Your task to perform on an android device: Do I have any events this weekend? Image 0: 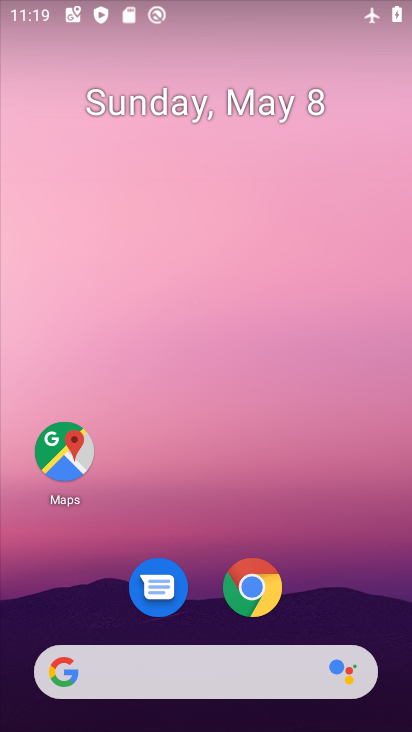
Step 0: drag from (376, 608) to (163, 154)
Your task to perform on an android device: Do I have any events this weekend? Image 1: 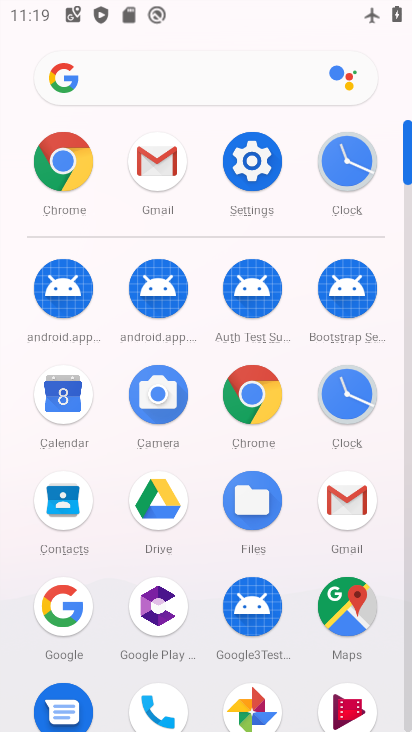
Step 1: click (64, 392)
Your task to perform on an android device: Do I have any events this weekend? Image 2: 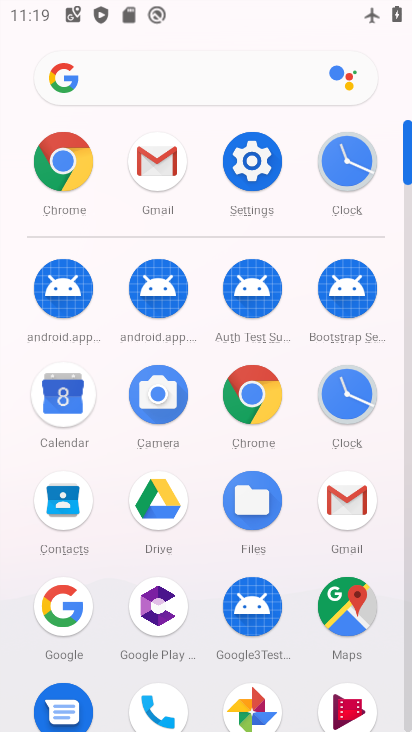
Step 2: click (59, 392)
Your task to perform on an android device: Do I have any events this weekend? Image 3: 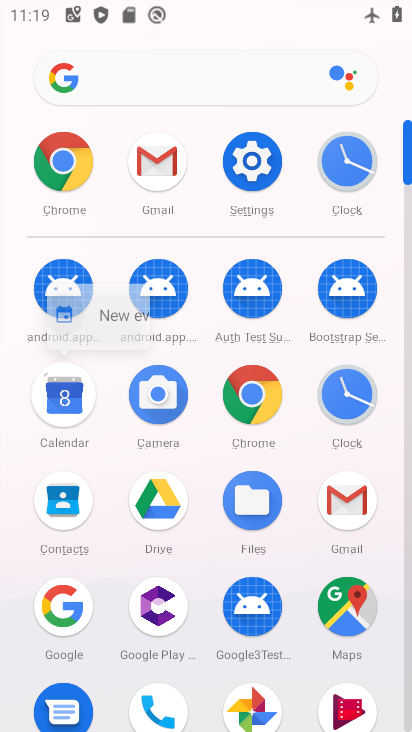
Step 3: click (50, 391)
Your task to perform on an android device: Do I have any events this weekend? Image 4: 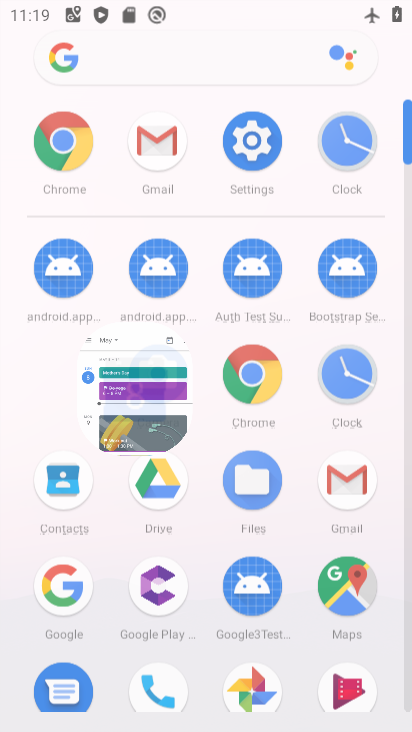
Step 4: click (50, 391)
Your task to perform on an android device: Do I have any events this weekend? Image 5: 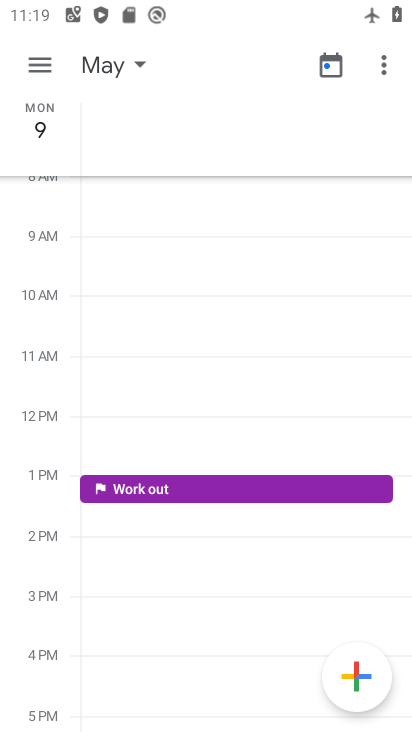
Step 5: drag from (182, 500) to (183, 107)
Your task to perform on an android device: Do I have any events this weekend? Image 6: 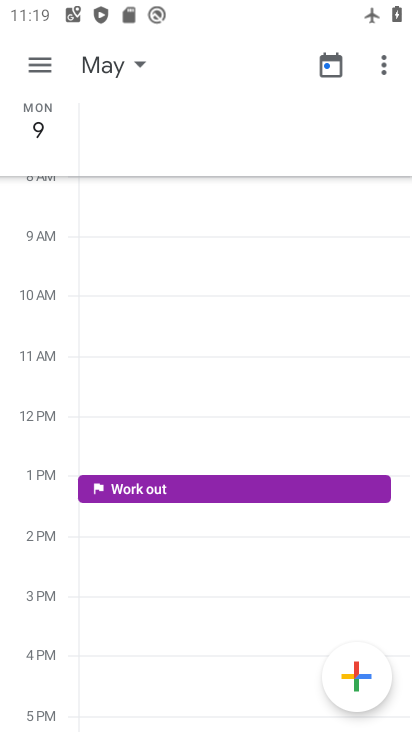
Step 6: drag from (153, 192) to (155, 457)
Your task to perform on an android device: Do I have any events this weekend? Image 7: 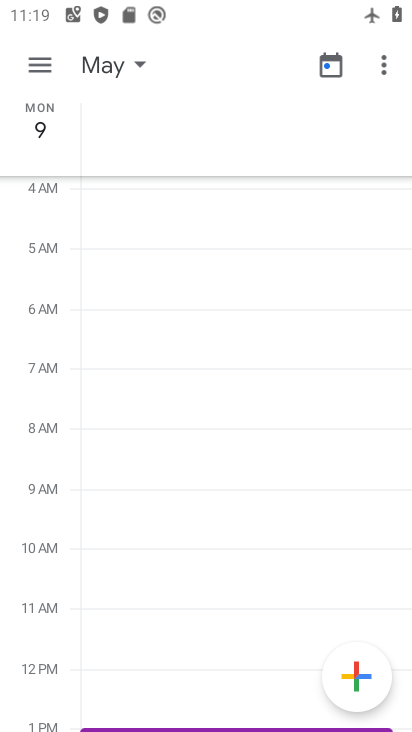
Step 7: drag from (138, 222) to (236, 556)
Your task to perform on an android device: Do I have any events this weekend? Image 8: 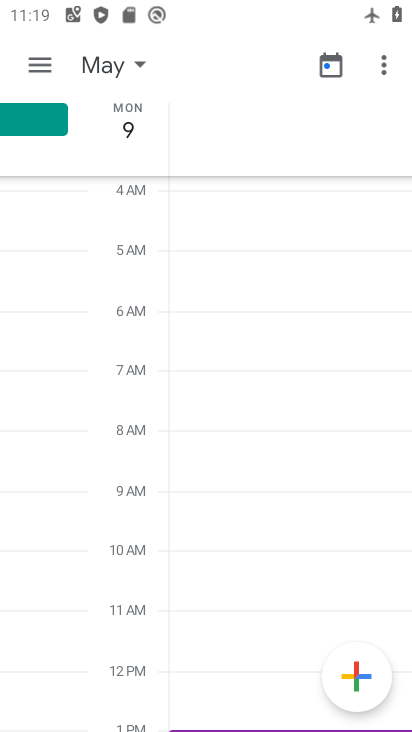
Step 8: drag from (190, 261) to (199, 538)
Your task to perform on an android device: Do I have any events this weekend? Image 9: 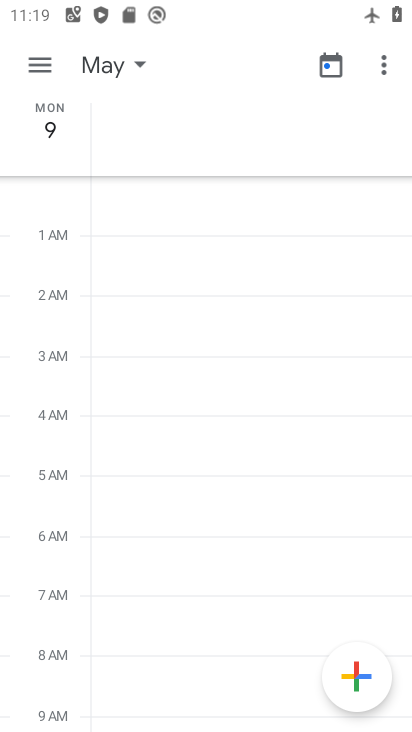
Step 9: drag from (176, 195) to (183, 579)
Your task to perform on an android device: Do I have any events this weekend? Image 10: 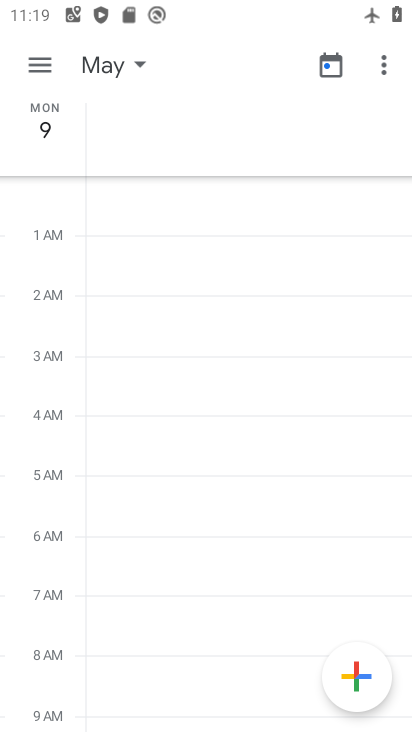
Step 10: drag from (104, 240) to (64, 702)
Your task to perform on an android device: Do I have any events this weekend? Image 11: 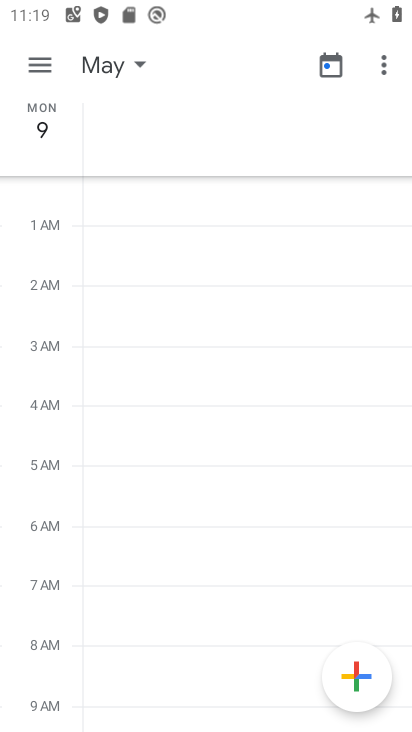
Step 11: click (152, 268)
Your task to perform on an android device: Do I have any events this weekend? Image 12: 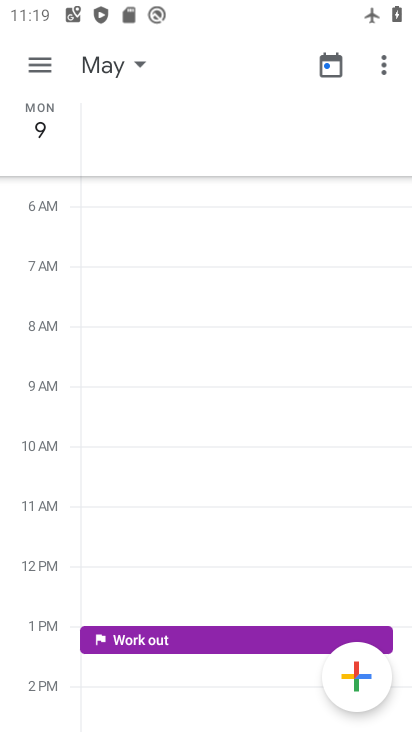
Step 12: drag from (135, 519) to (131, 170)
Your task to perform on an android device: Do I have any events this weekend? Image 13: 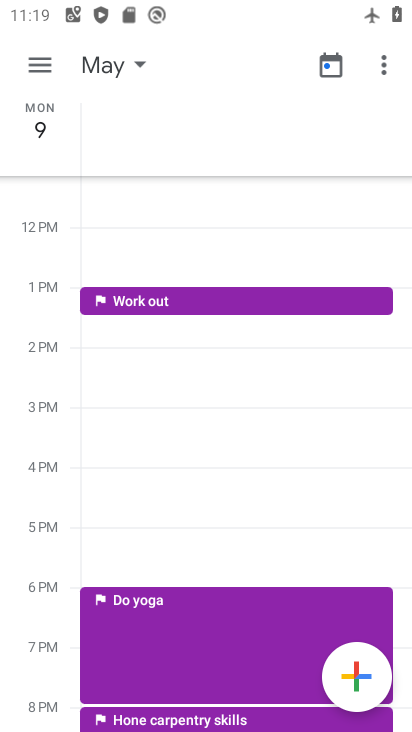
Step 13: drag from (157, 466) to (227, 646)
Your task to perform on an android device: Do I have any events this weekend? Image 14: 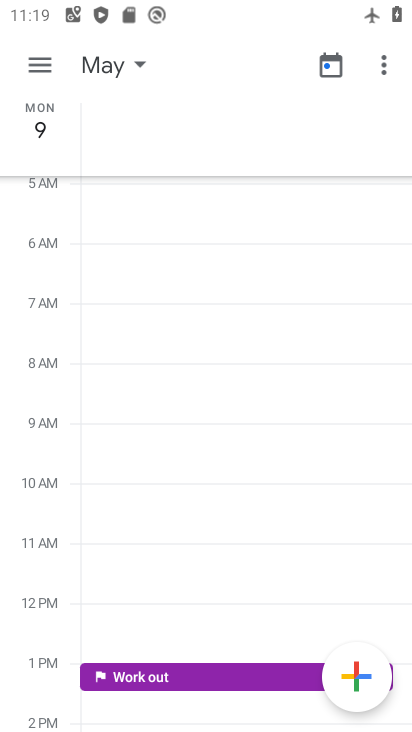
Step 14: drag from (254, 215) to (251, 576)
Your task to perform on an android device: Do I have any events this weekend? Image 15: 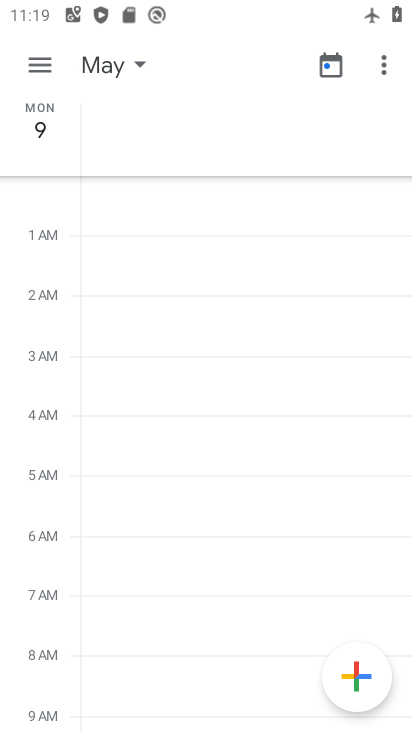
Step 15: drag from (245, 222) to (238, 616)
Your task to perform on an android device: Do I have any events this weekend? Image 16: 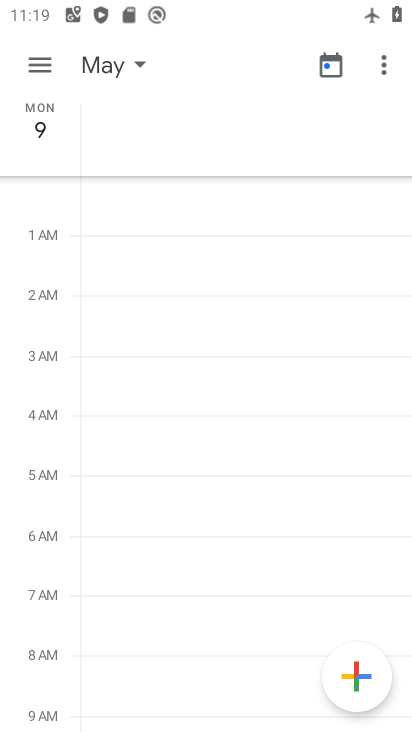
Step 16: drag from (195, 236) to (177, 700)
Your task to perform on an android device: Do I have any events this weekend? Image 17: 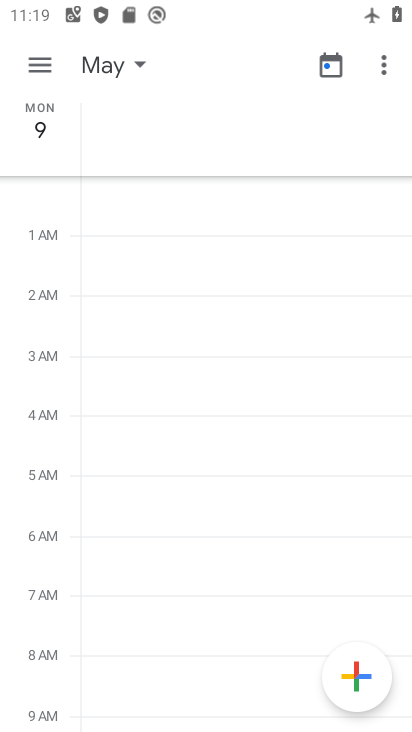
Step 17: drag from (125, 300) to (173, 609)
Your task to perform on an android device: Do I have any events this weekend? Image 18: 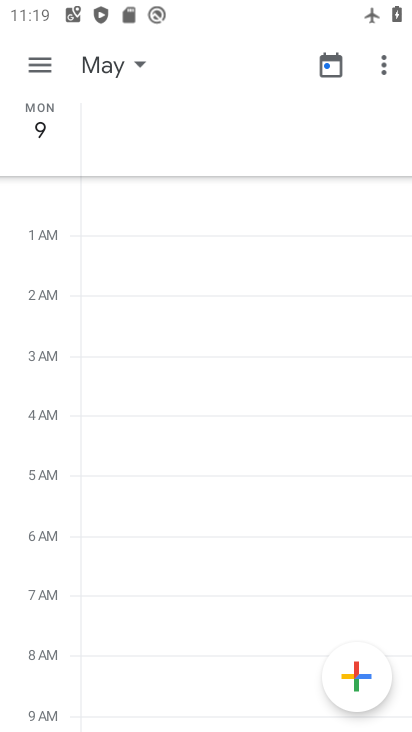
Step 18: drag from (183, 265) to (144, 661)
Your task to perform on an android device: Do I have any events this weekend? Image 19: 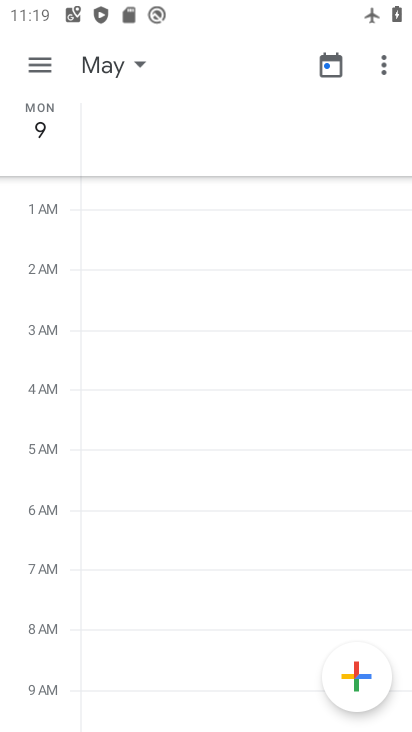
Step 19: drag from (146, 224) to (146, 620)
Your task to perform on an android device: Do I have any events this weekend? Image 20: 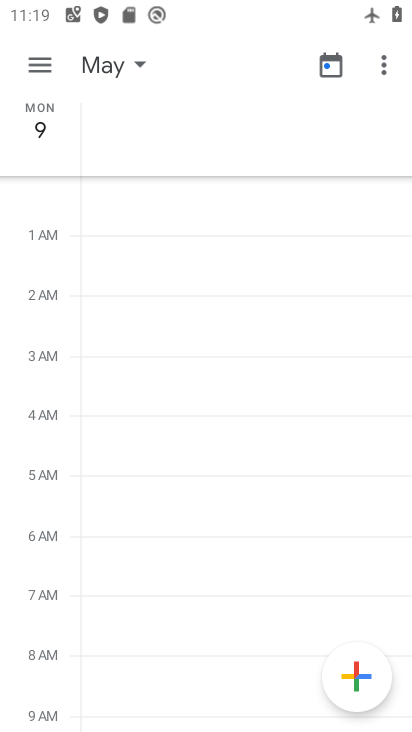
Step 20: drag from (210, 286) to (209, 707)
Your task to perform on an android device: Do I have any events this weekend? Image 21: 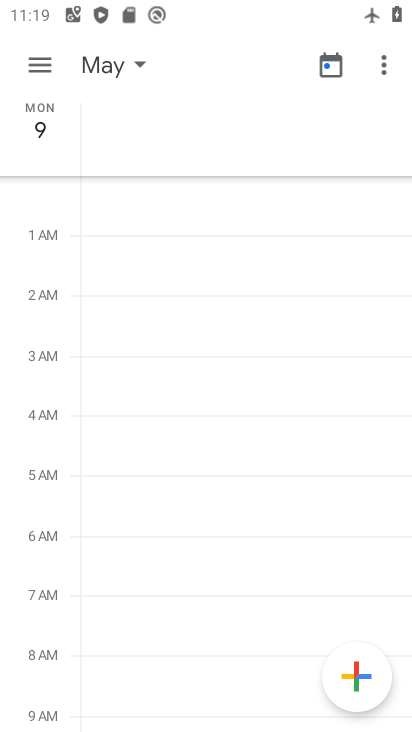
Step 21: drag from (208, 226) to (253, 612)
Your task to perform on an android device: Do I have any events this weekend? Image 22: 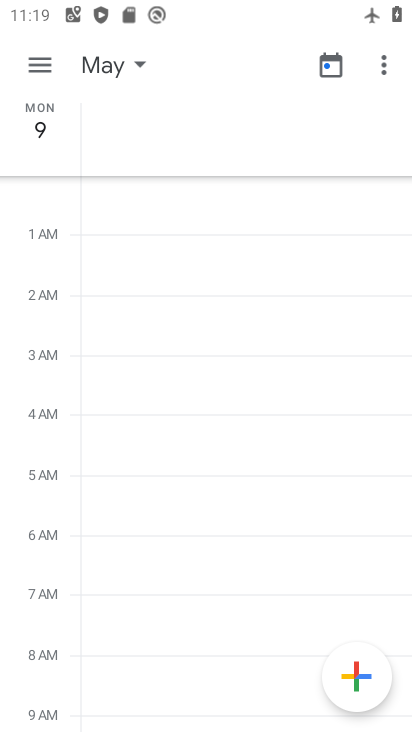
Step 22: drag from (230, 283) to (262, 628)
Your task to perform on an android device: Do I have any events this weekend? Image 23: 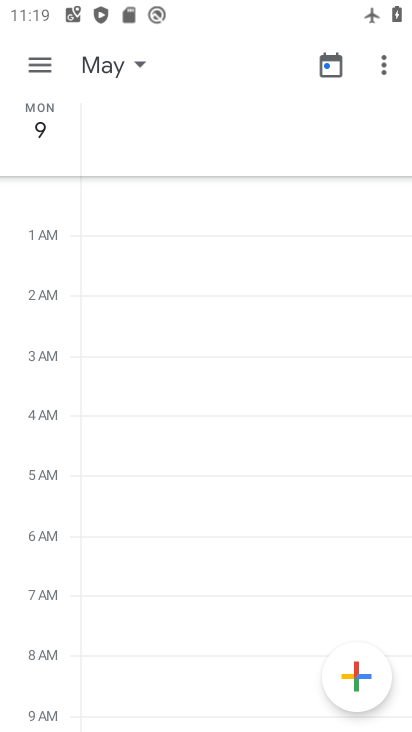
Step 23: drag from (242, 225) to (261, 683)
Your task to perform on an android device: Do I have any events this weekend? Image 24: 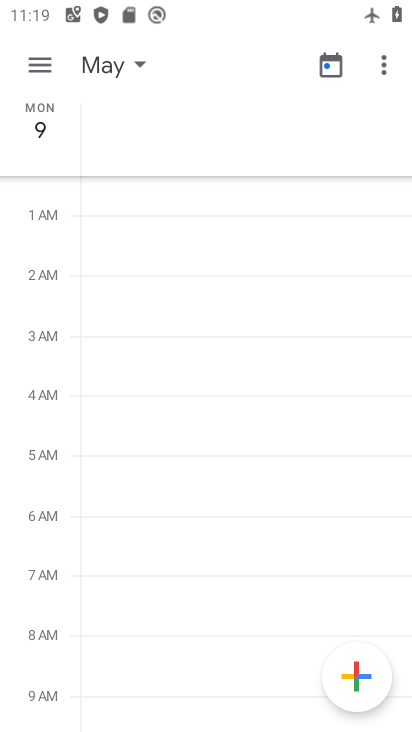
Step 24: drag from (89, 299) to (89, 590)
Your task to perform on an android device: Do I have any events this weekend? Image 25: 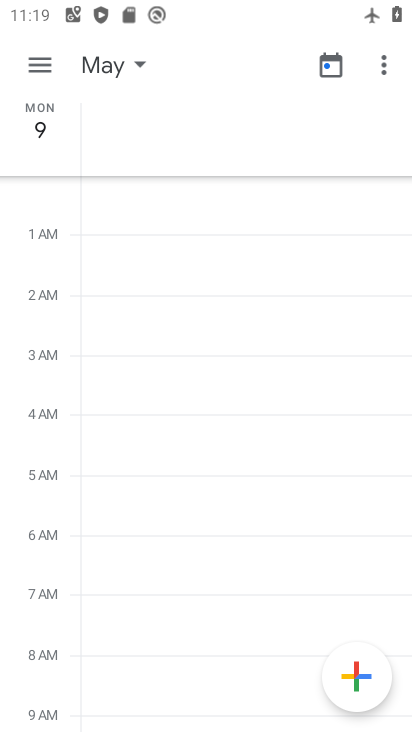
Step 25: drag from (123, 184) to (142, 538)
Your task to perform on an android device: Do I have any events this weekend? Image 26: 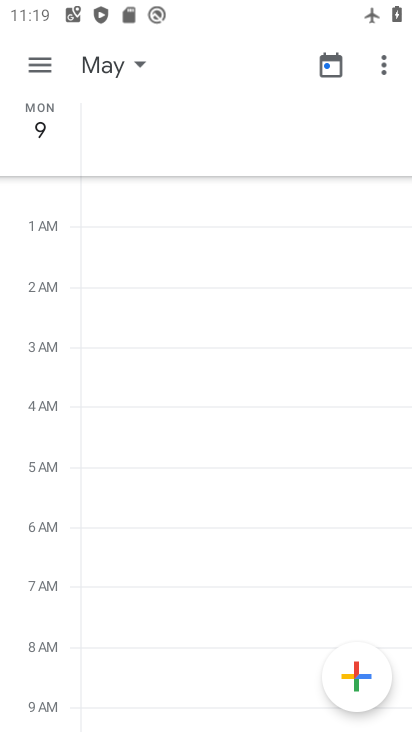
Step 26: drag from (207, 186) to (207, 589)
Your task to perform on an android device: Do I have any events this weekend? Image 27: 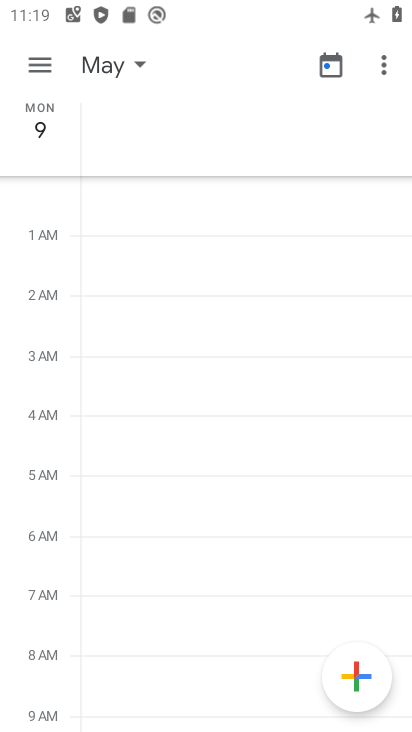
Step 27: drag from (215, 212) to (204, 564)
Your task to perform on an android device: Do I have any events this weekend? Image 28: 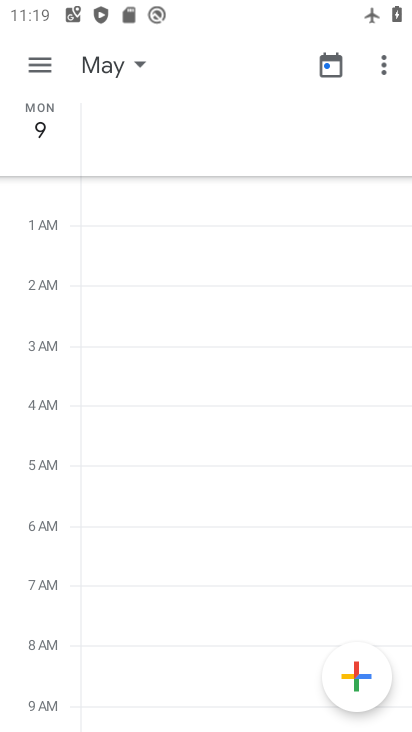
Step 28: drag from (195, 170) to (218, 513)
Your task to perform on an android device: Do I have any events this weekend? Image 29: 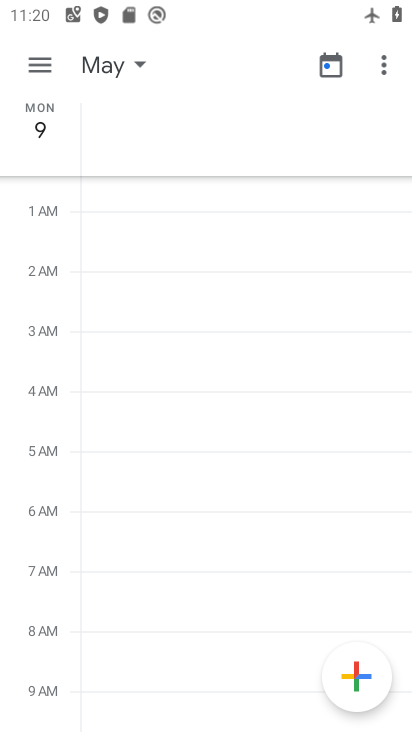
Step 29: click (142, 64)
Your task to perform on an android device: Do I have any events this weekend? Image 30: 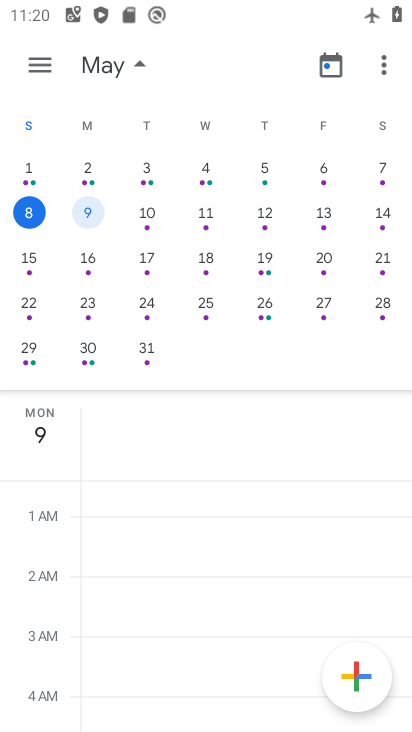
Step 30: drag from (159, 540) to (84, 178)
Your task to perform on an android device: Do I have any events this weekend? Image 31: 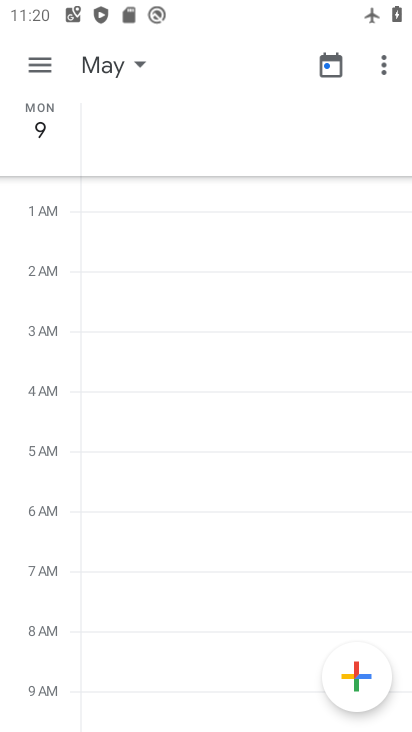
Step 31: drag from (86, 559) to (206, 730)
Your task to perform on an android device: Do I have any events this weekend? Image 32: 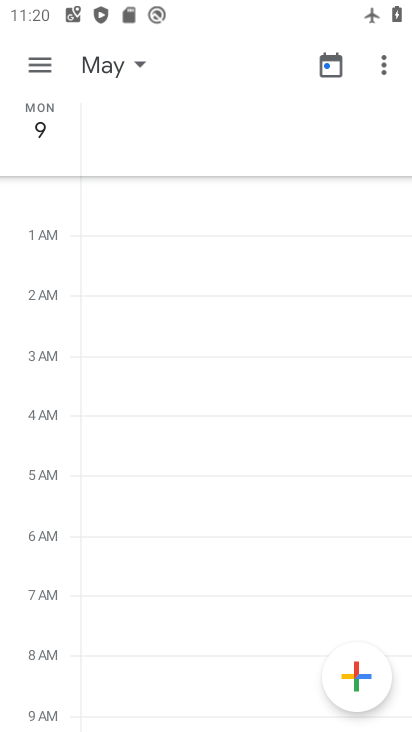
Step 32: drag from (225, 226) to (301, 655)
Your task to perform on an android device: Do I have any events this weekend? Image 33: 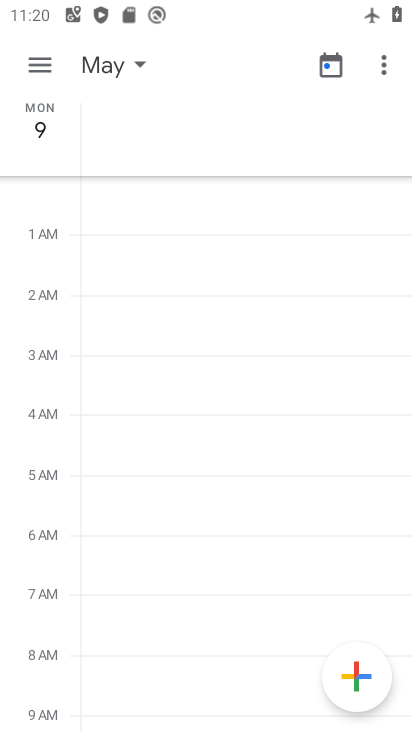
Step 33: drag from (197, 153) to (251, 598)
Your task to perform on an android device: Do I have any events this weekend? Image 34: 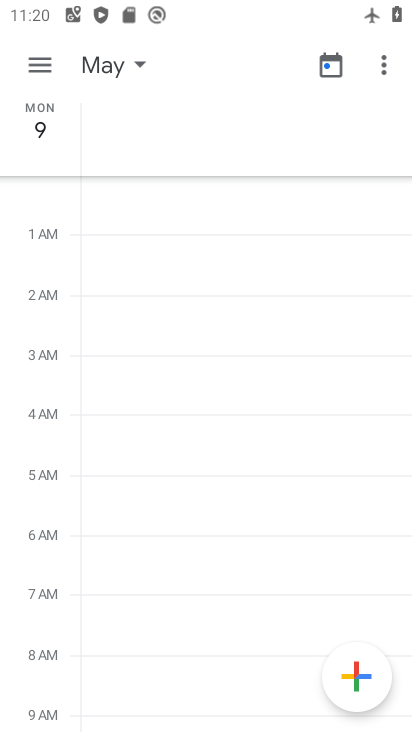
Step 34: drag from (149, 221) to (233, 710)
Your task to perform on an android device: Do I have any events this weekend? Image 35: 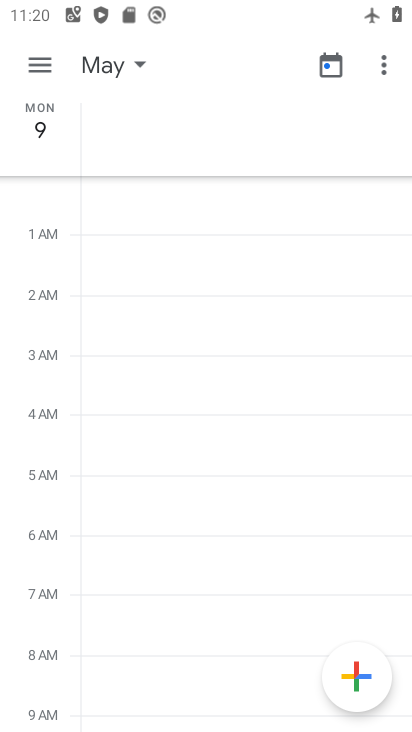
Step 35: click (137, 63)
Your task to perform on an android device: Do I have any events this weekend? Image 36: 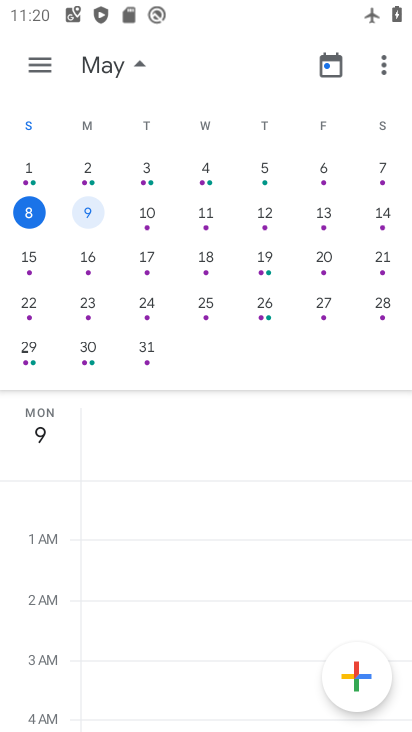
Step 36: click (325, 214)
Your task to perform on an android device: Do I have any events this weekend? Image 37: 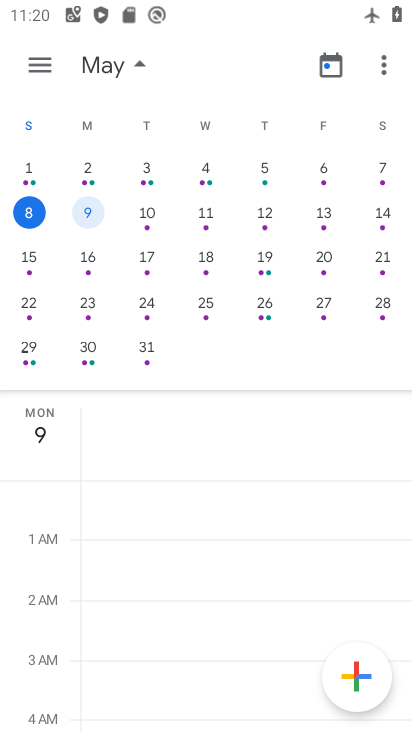
Step 37: click (377, 216)
Your task to perform on an android device: Do I have any events this weekend? Image 38: 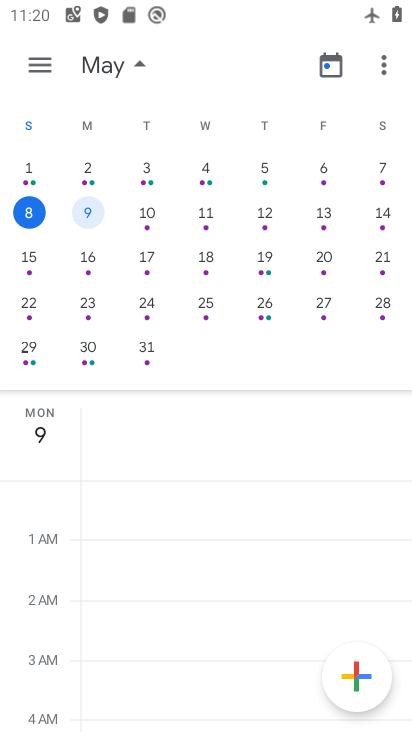
Step 38: click (377, 216)
Your task to perform on an android device: Do I have any events this weekend? Image 39: 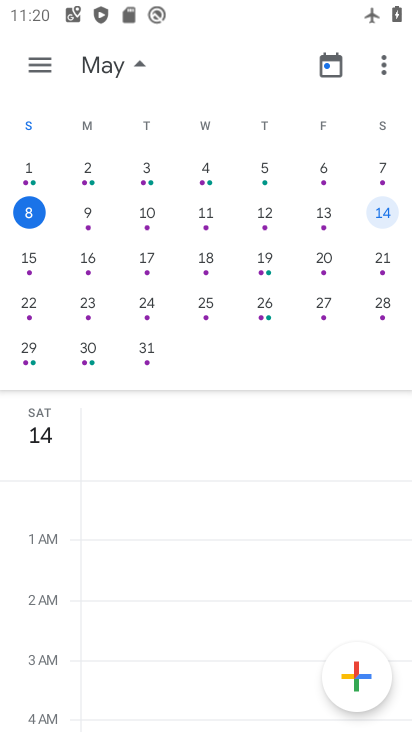
Step 39: task complete